Your task to perform on an android device: Turn on the flashlight Image 0: 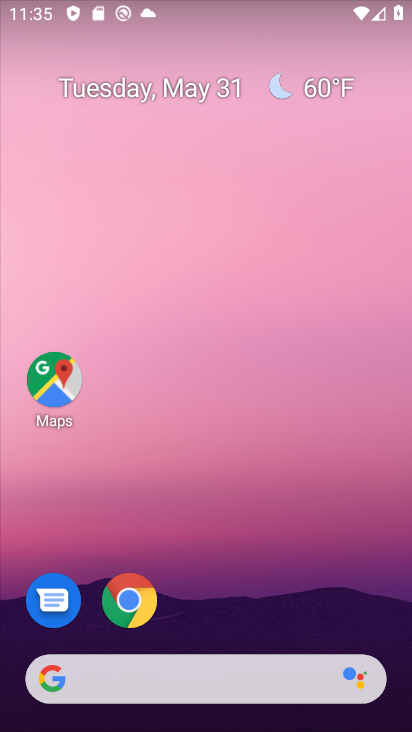
Step 0: drag from (267, 3) to (266, 364)
Your task to perform on an android device: Turn on the flashlight Image 1: 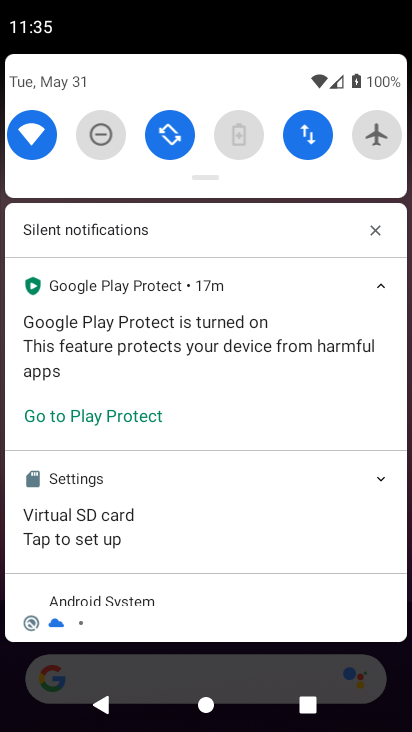
Step 1: drag from (193, 66) to (205, 331)
Your task to perform on an android device: Turn on the flashlight Image 2: 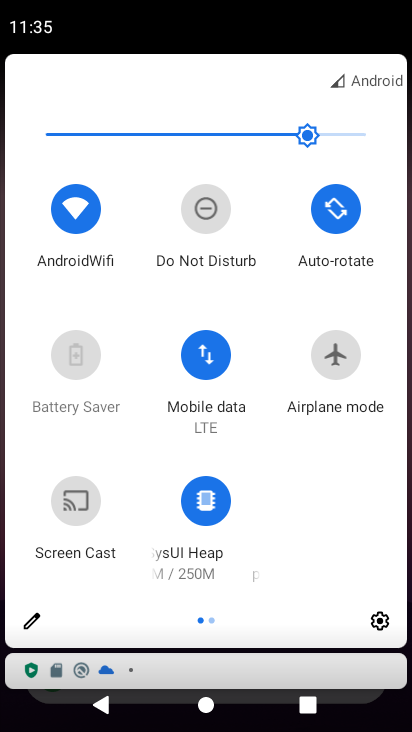
Step 2: click (27, 625)
Your task to perform on an android device: Turn on the flashlight Image 3: 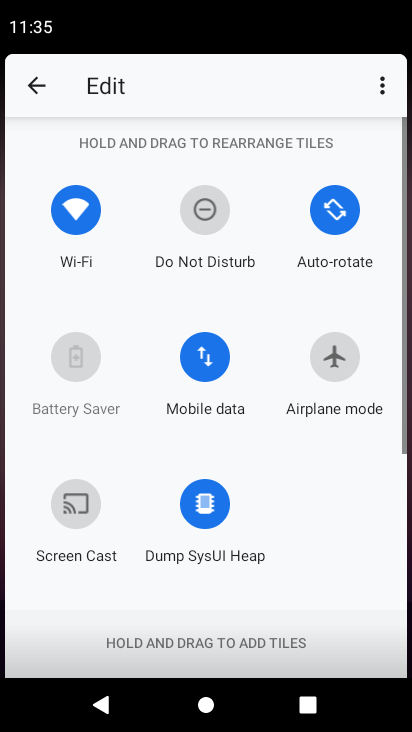
Step 3: task complete